Your task to perform on an android device: Open calendar and show me the third week of next month Image 0: 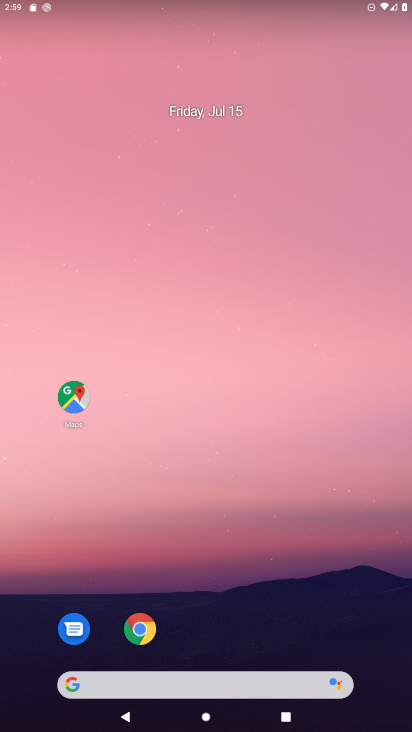
Step 0: drag from (282, 567) to (200, 0)
Your task to perform on an android device: Open calendar and show me the third week of next month Image 1: 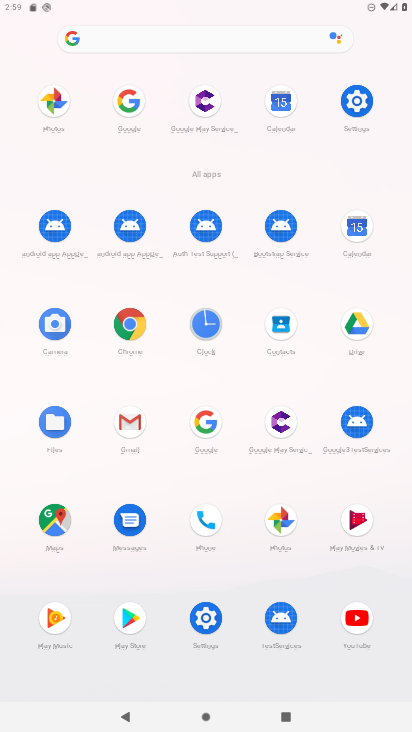
Step 1: click (359, 229)
Your task to perform on an android device: Open calendar and show me the third week of next month Image 2: 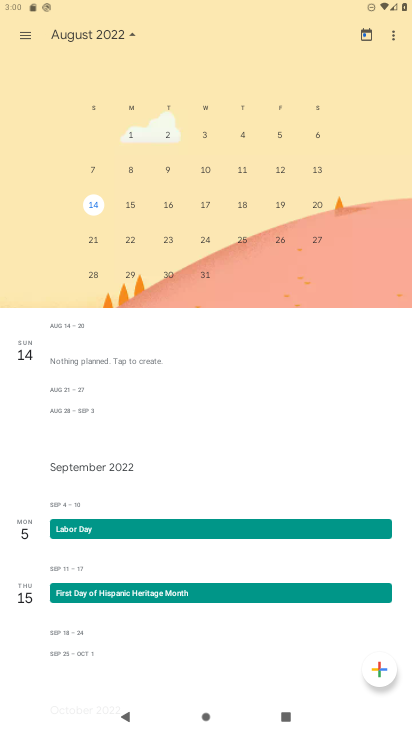
Step 2: drag from (5, 222) to (22, 287)
Your task to perform on an android device: Open calendar and show me the third week of next month Image 3: 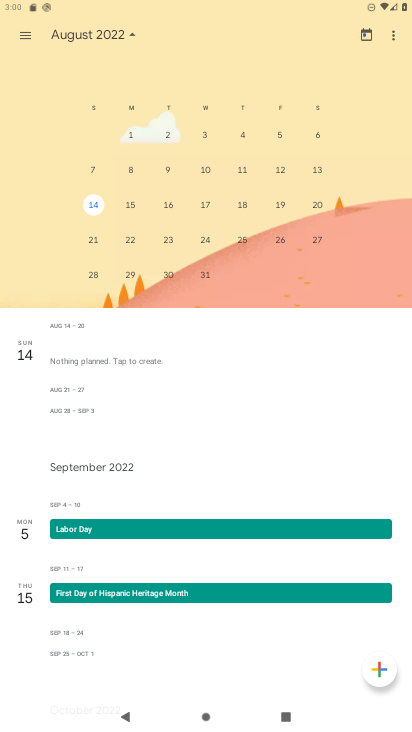
Step 3: click (95, 37)
Your task to perform on an android device: Open calendar and show me the third week of next month Image 4: 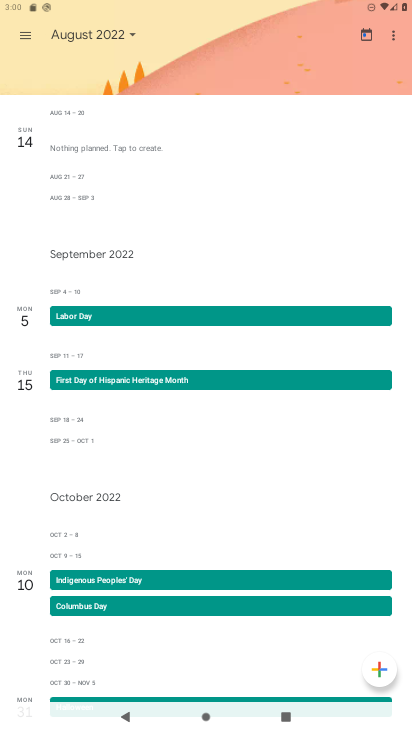
Step 4: click (93, 32)
Your task to perform on an android device: Open calendar and show me the third week of next month Image 5: 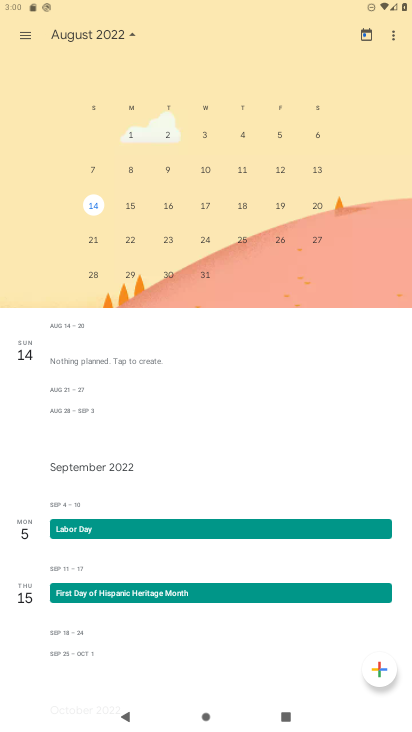
Step 5: drag from (302, 161) to (46, 218)
Your task to perform on an android device: Open calendar and show me the third week of next month Image 6: 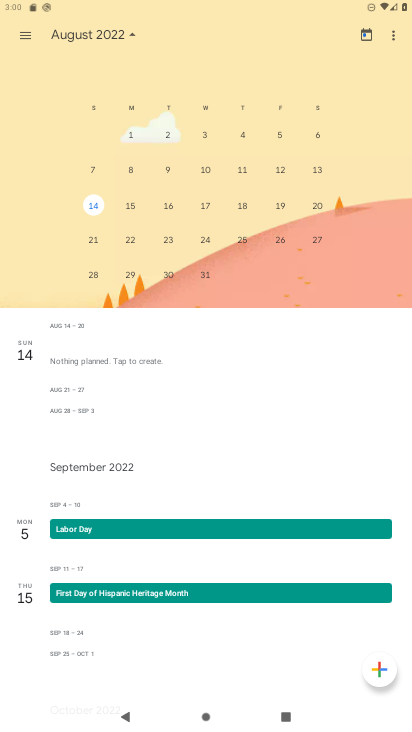
Step 6: click (89, 240)
Your task to perform on an android device: Open calendar and show me the third week of next month Image 7: 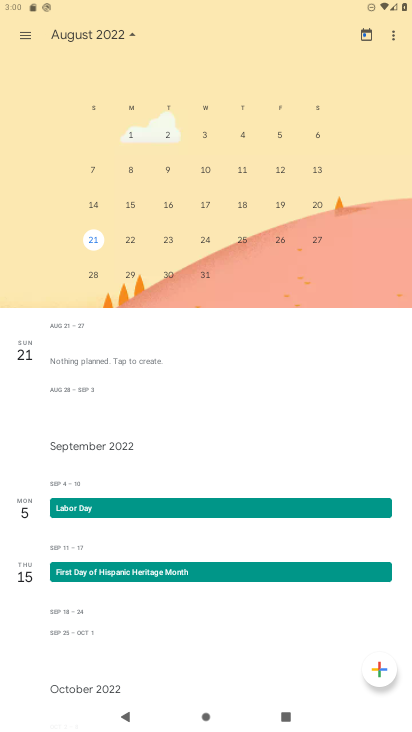
Step 7: task complete